Your task to perform on an android device: manage bookmarks in the chrome app Image 0: 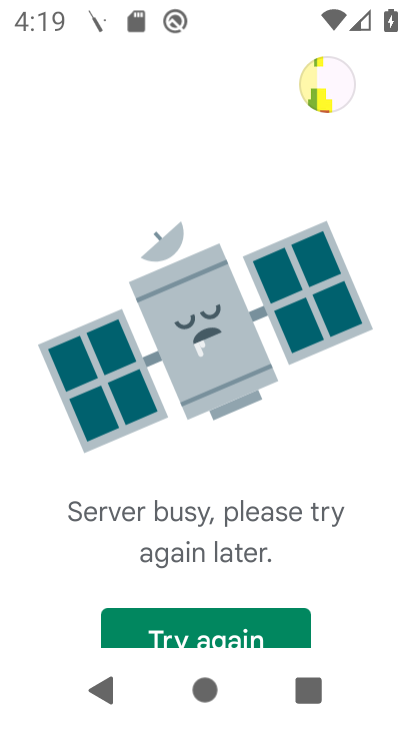
Step 0: press home button
Your task to perform on an android device: manage bookmarks in the chrome app Image 1: 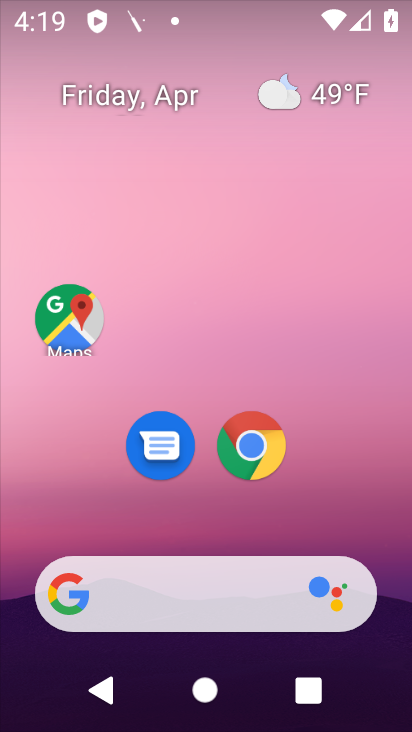
Step 1: drag from (314, 504) to (319, 64)
Your task to perform on an android device: manage bookmarks in the chrome app Image 2: 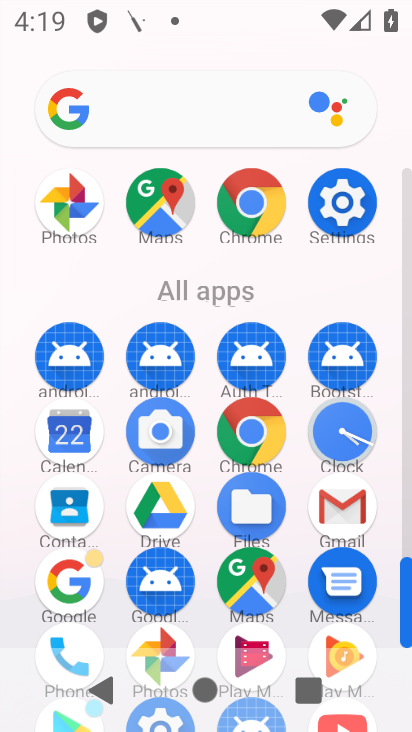
Step 2: click (249, 440)
Your task to perform on an android device: manage bookmarks in the chrome app Image 3: 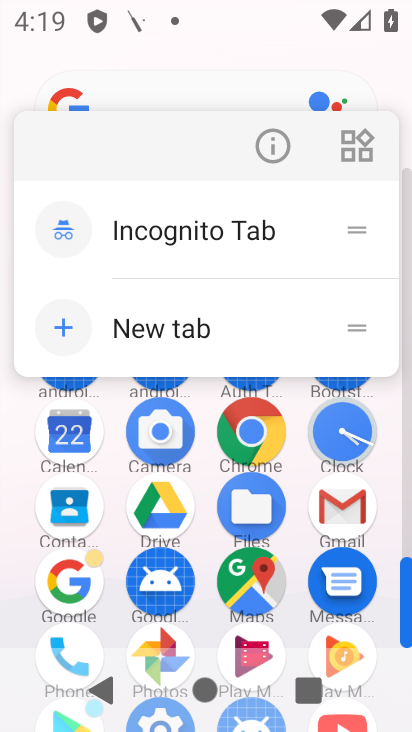
Step 3: click (255, 435)
Your task to perform on an android device: manage bookmarks in the chrome app Image 4: 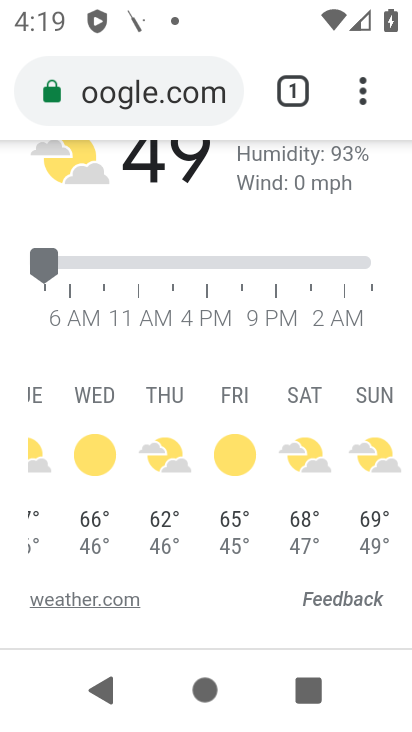
Step 4: click (364, 96)
Your task to perform on an android device: manage bookmarks in the chrome app Image 5: 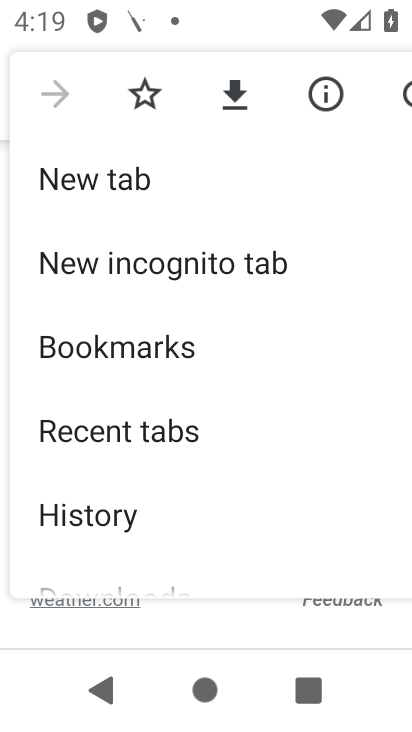
Step 5: drag from (167, 465) to (279, 96)
Your task to perform on an android device: manage bookmarks in the chrome app Image 6: 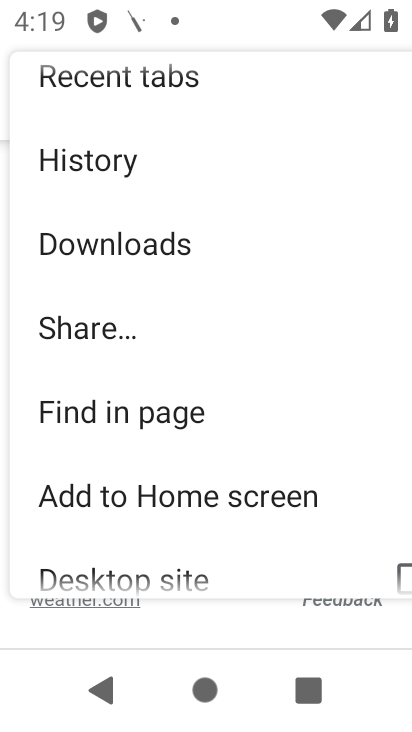
Step 6: drag from (191, 441) to (326, 223)
Your task to perform on an android device: manage bookmarks in the chrome app Image 7: 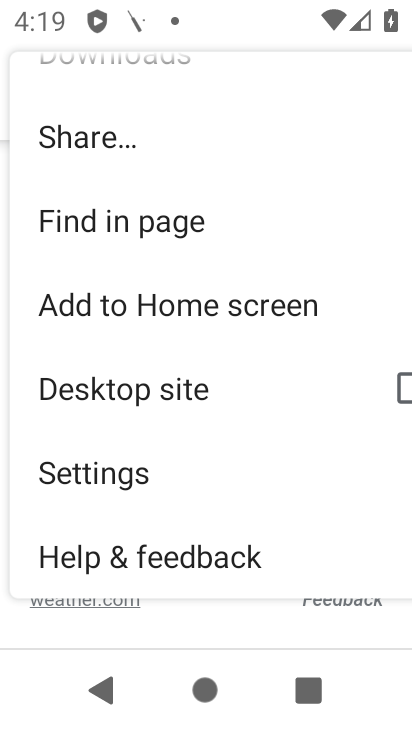
Step 7: drag from (236, 300) to (213, 530)
Your task to perform on an android device: manage bookmarks in the chrome app Image 8: 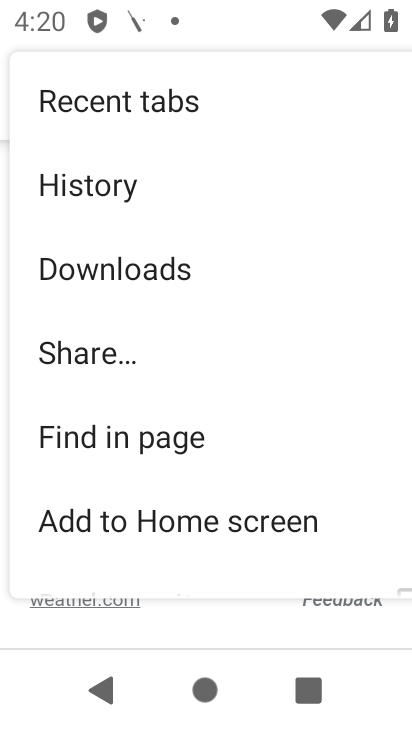
Step 8: drag from (178, 439) to (257, 707)
Your task to perform on an android device: manage bookmarks in the chrome app Image 9: 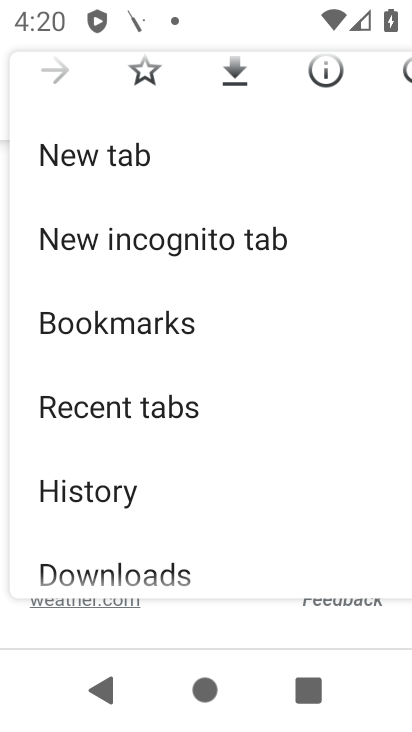
Step 9: drag from (237, 264) to (240, 498)
Your task to perform on an android device: manage bookmarks in the chrome app Image 10: 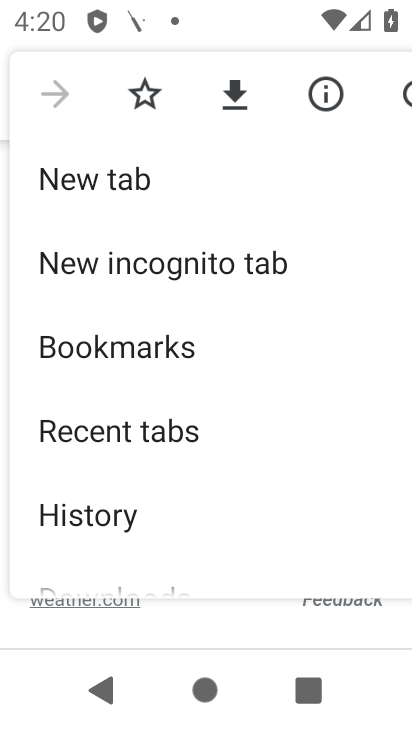
Step 10: click (134, 356)
Your task to perform on an android device: manage bookmarks in the chrome app Image 11: 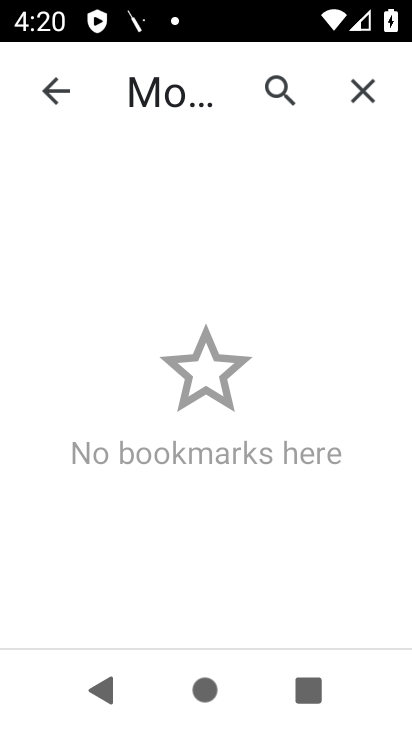
Step 11: task complete